Your task to perform on an android device: remove spam from my inbox in the gmail app Image 0: 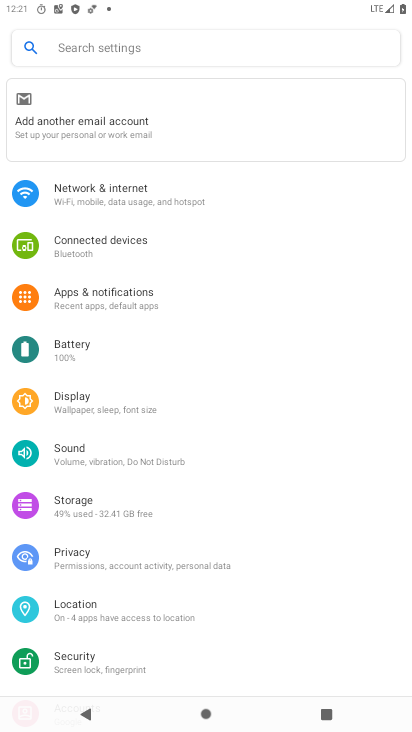
Step 0: press home button
Your task to perform on an android device: remove spam from my inbox in the gmail app Image 1: 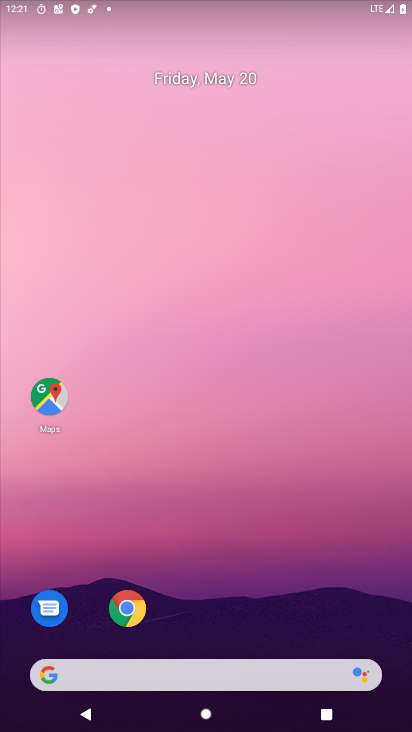
Step 1: drag from (388, 607) to (365, 184)
Your task to perform on an android device: remove spam from my inbox in the gmail app Image 2: 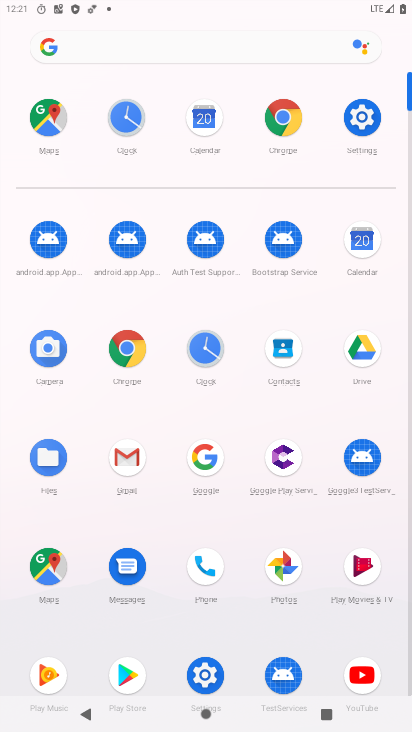
Step 2: click (121, 475)
Your task to perform on an android device: remove spam from my inbox in the gmail app Image 3: 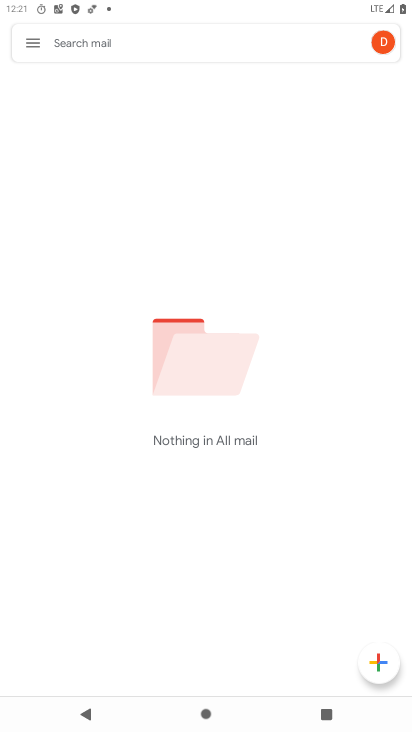
Step 3: click (40, 52)
Your task to perform on an android device: remove spam from my inbox in the gmail app Image 4: 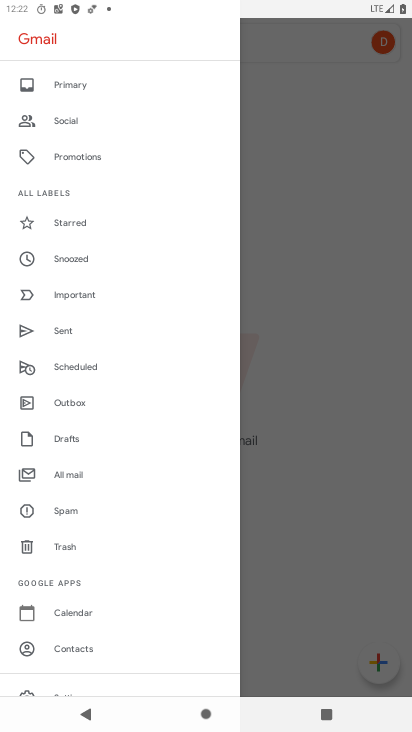
Step 4: click (76, 506)
Your task to perform on an android device: remove spam from my inbox in the gmail app Image 5: 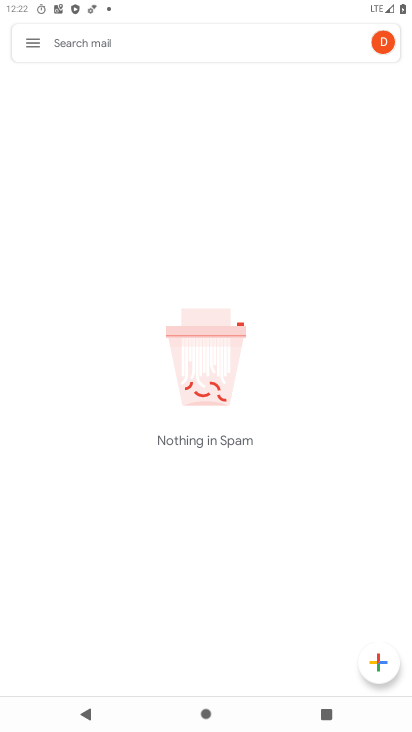
Step 5: task complete